Your task to perform on an android device: uninstall "WhatsApp Messenger" Image 0: 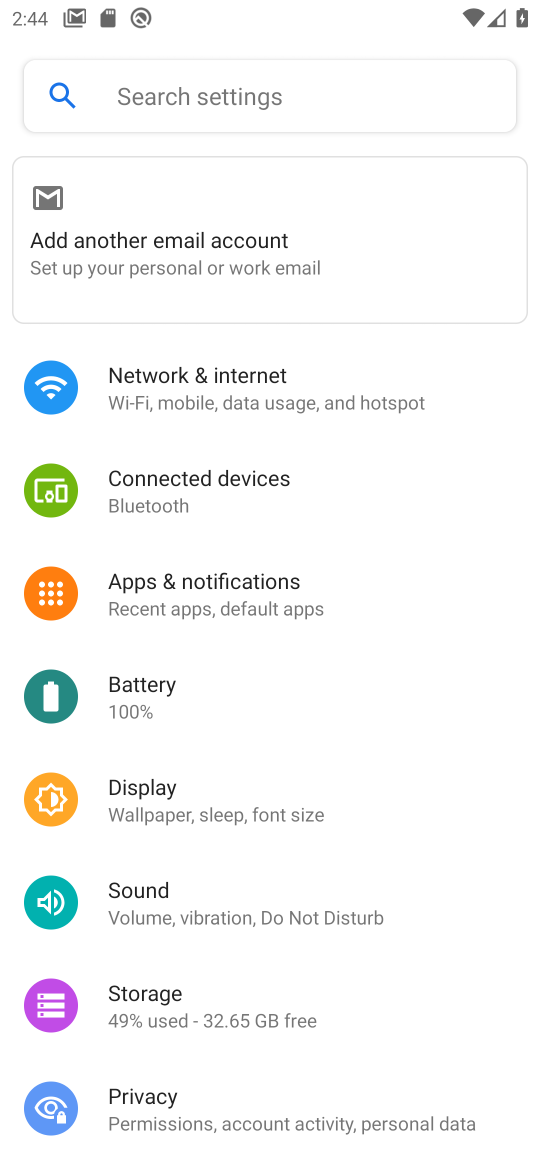
Step 0: press back button
Your task to perform on an android device: uninstall "WhatsApp Messenger" Image 1: 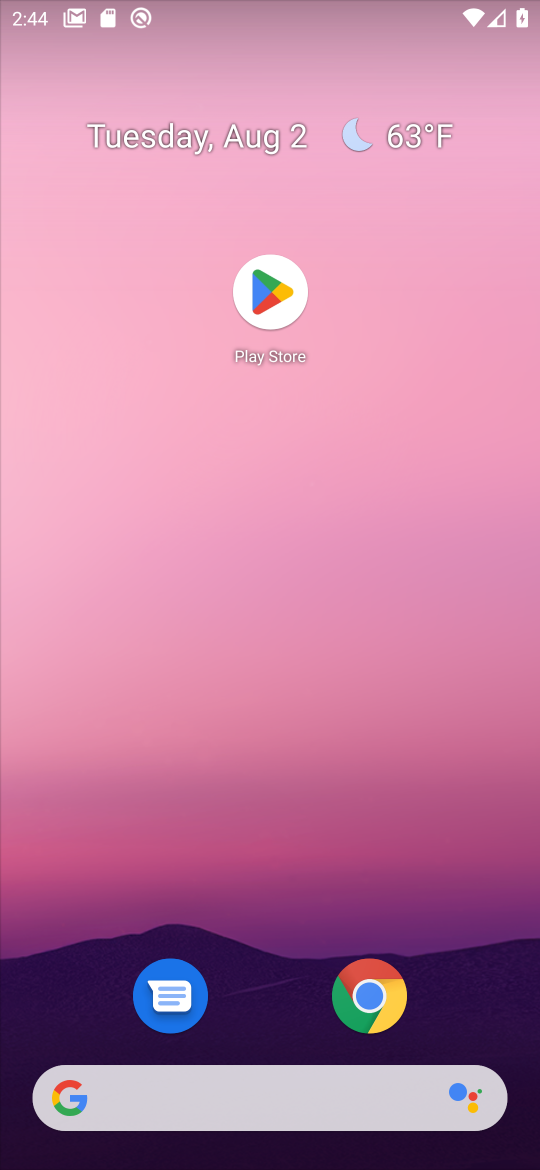
Step 1: click (44, 321)
Your task to perform on an android device: uninstall "WhatsApp Messenger" Image 2: 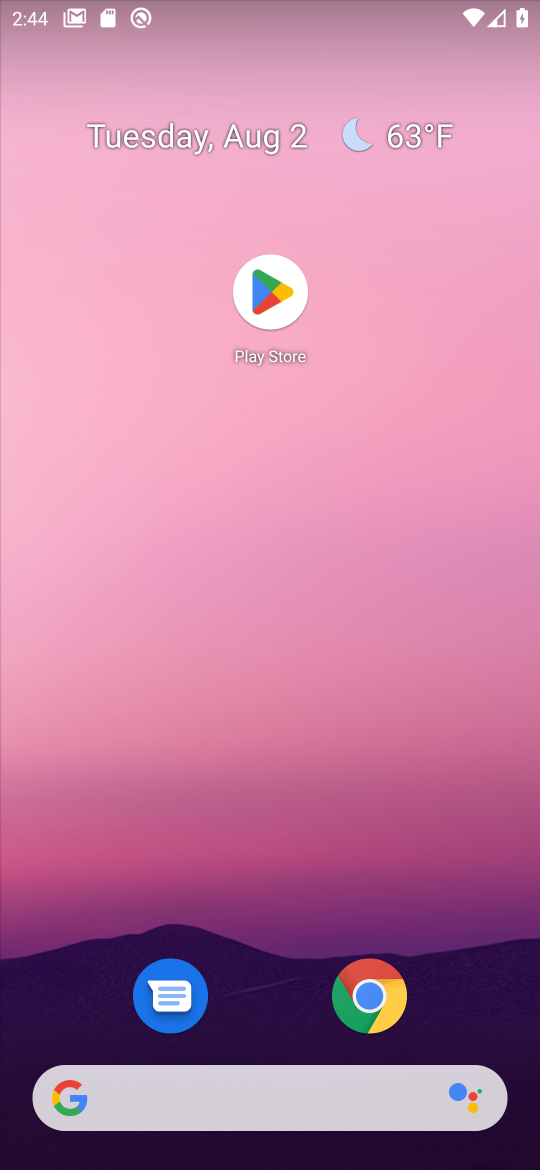
Step 2: click (250, 329)
Your task to perform on an android device: uninstall "WhatsApp Messenger" Image 3: 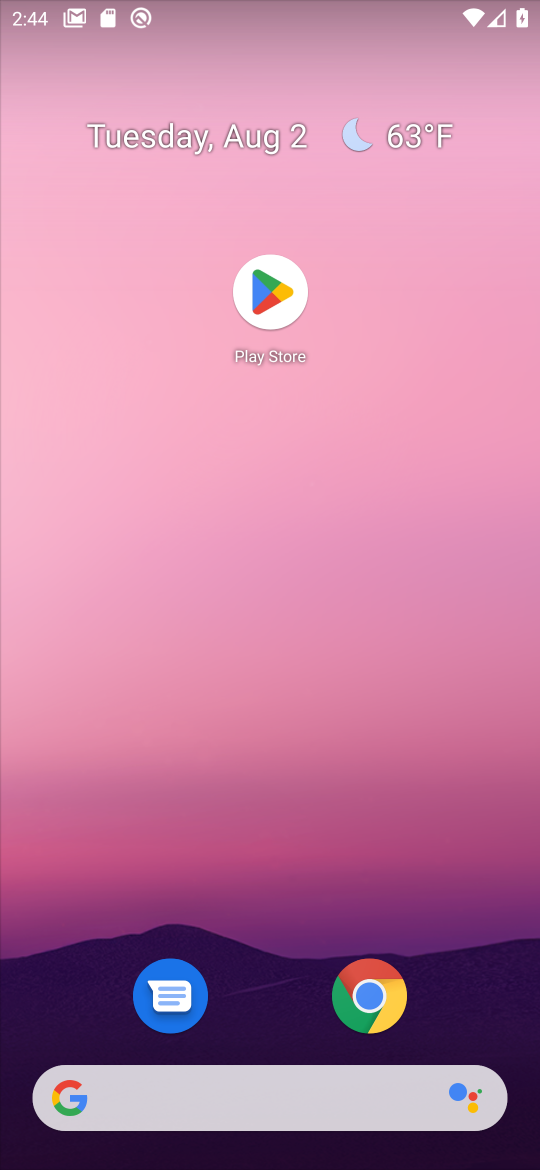
Step 3: click (254, 306)
Your task to perform on an android device: uninstall "WhatsApp Messenger" Image 4: 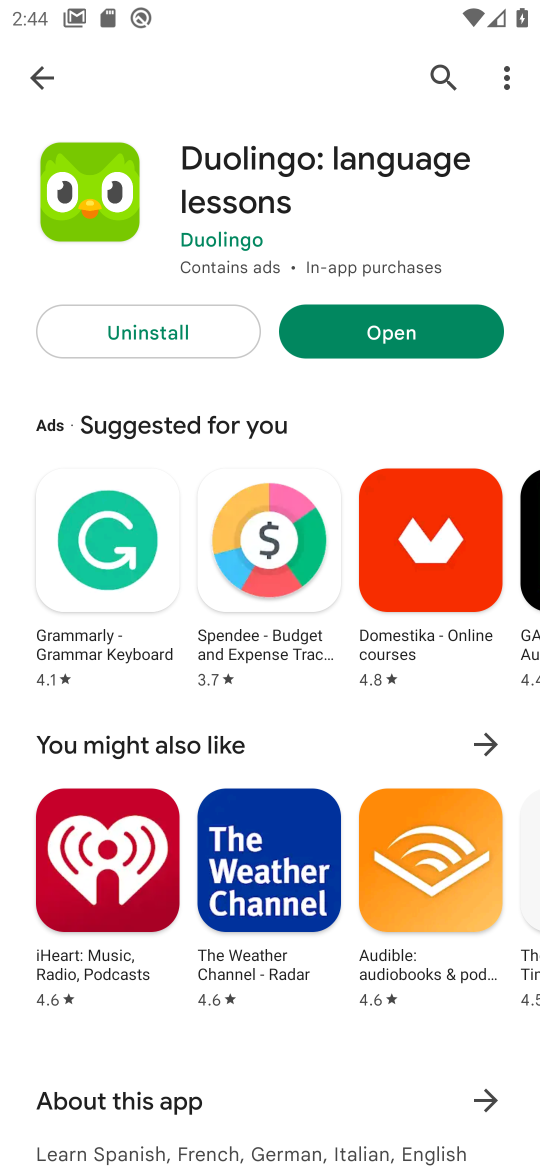
Step 4: click (447, 82)
Your task to perform on an android device: uninstall "WhatsApp Messenger" Image 5: 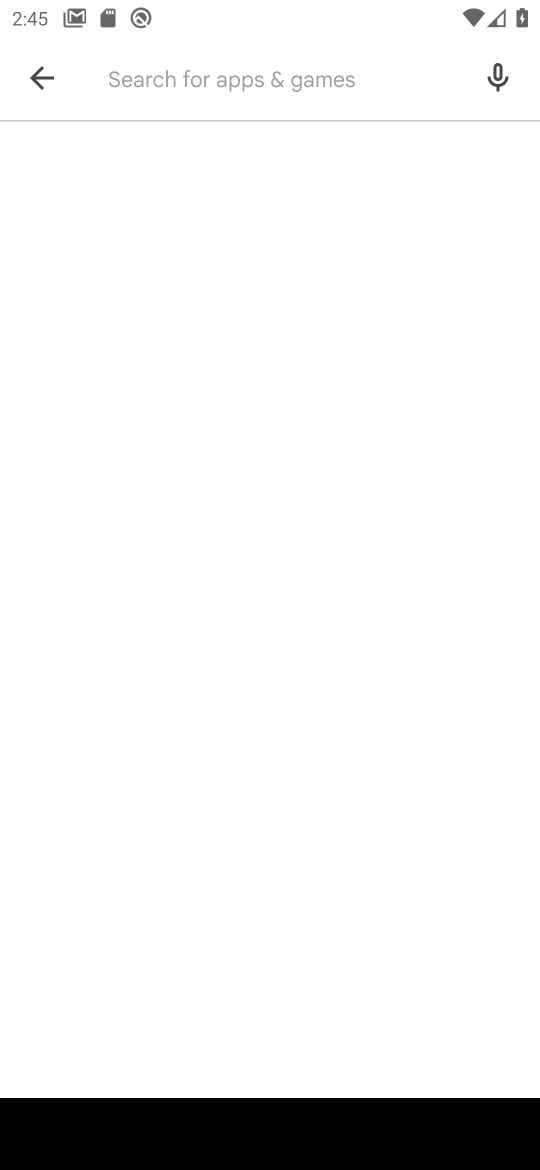
Step 5: type "whatsapp"
Your task to perform on an android device: uninstall "WhatsApp Messenger" Image 6: 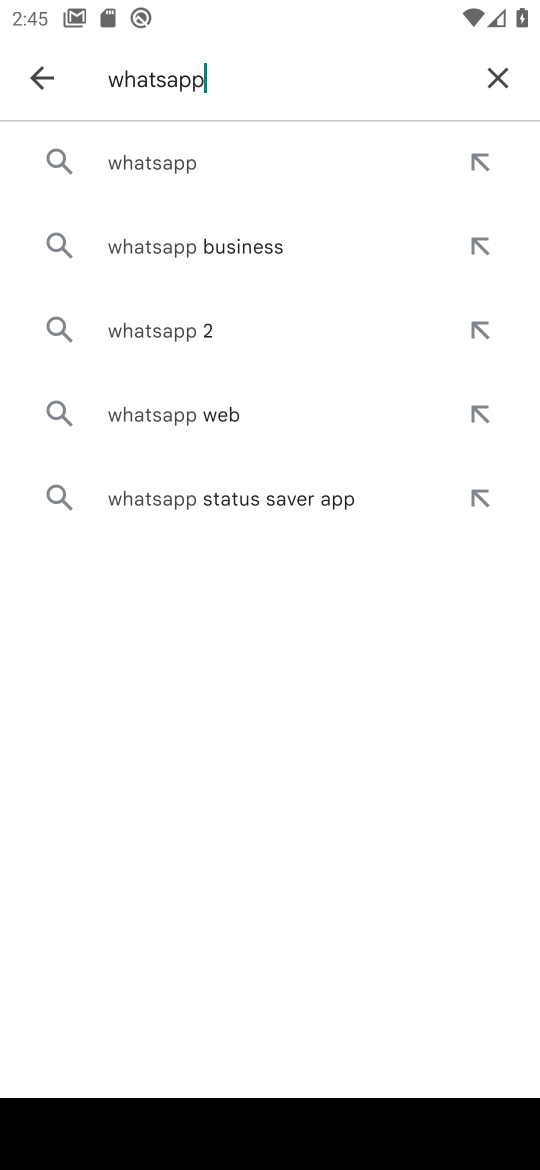
Step 6: click (187, 160)
Your task to perform on an android device: uninstall "WhatsApp Messenger" Image 7: 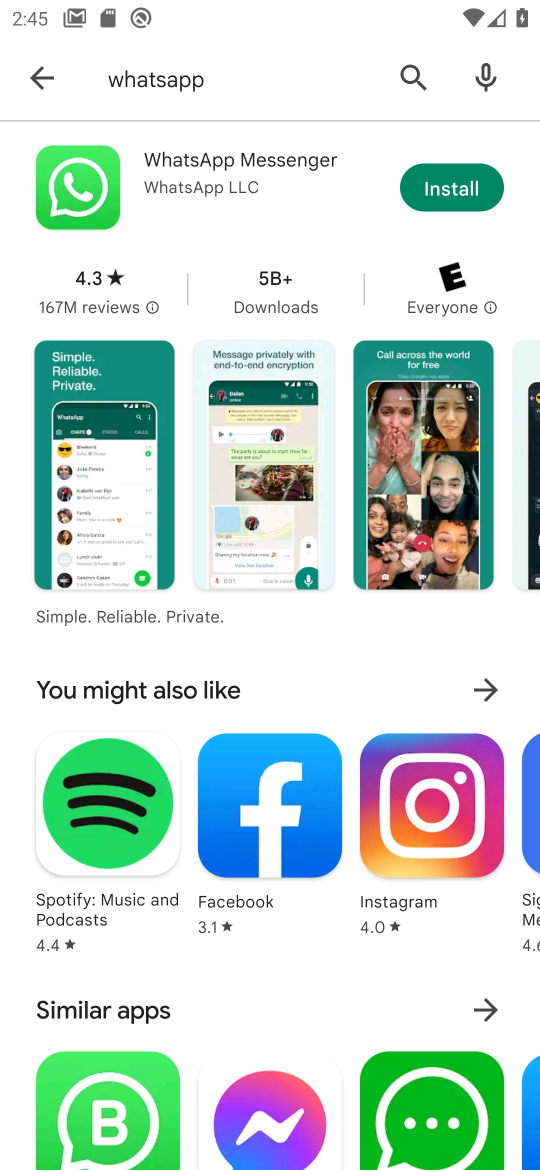
Step 7: task complete